Your task to perform on an android device: toggle javascript in the chrome app Image 0: 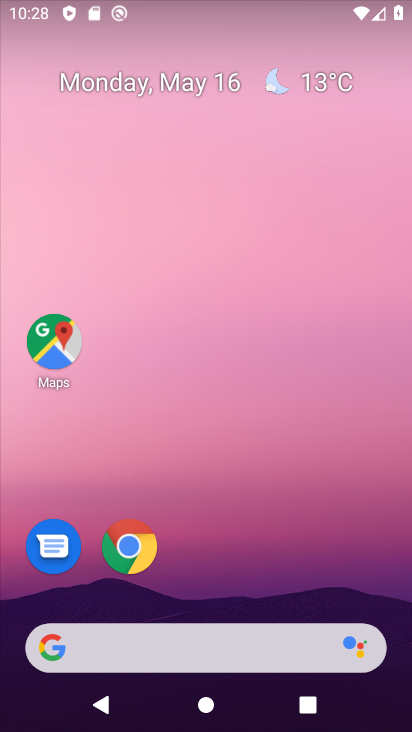
Step 0: drag from (294, 408) to (340, 0)
Your task to perform on an android device: toggle javascript in the chrome app Image 1: 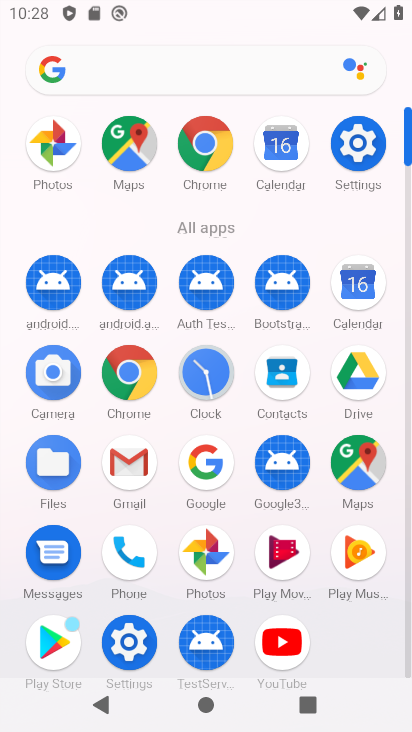
Step 1: click (204, 145)
Your task to perform on an android device: toggle javascript in the chrome app Image 2: 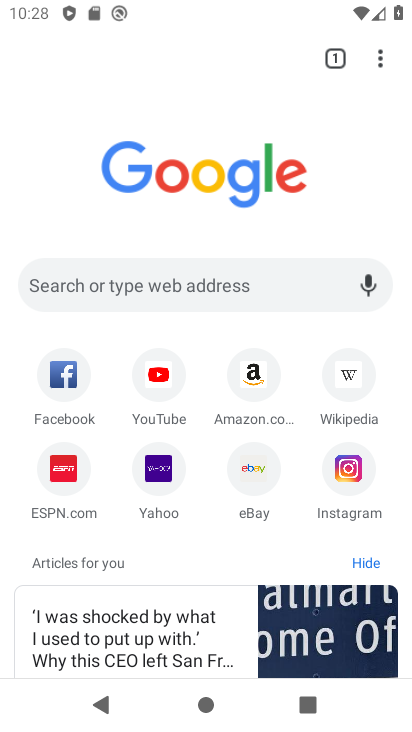
Step 2: drag from (381, 60) to (192, 490)
Your task to perform on an android device: toggle javascript in the chrome app Image 3: 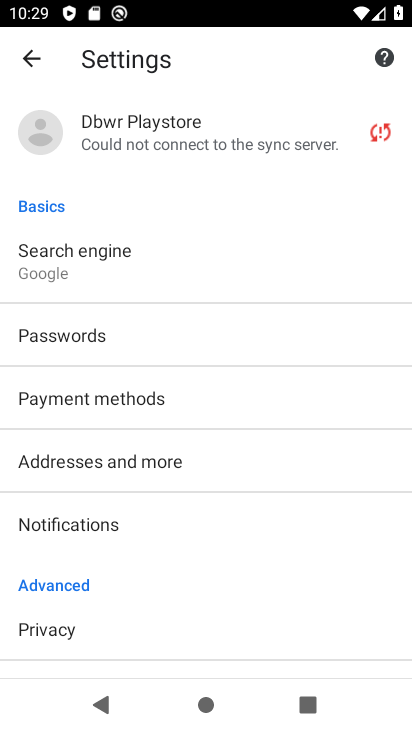
Step 3: drag from (190, 617) to (243, 167)
Your task to perform on an android device: toggle javascript in the chrome app Image 4: 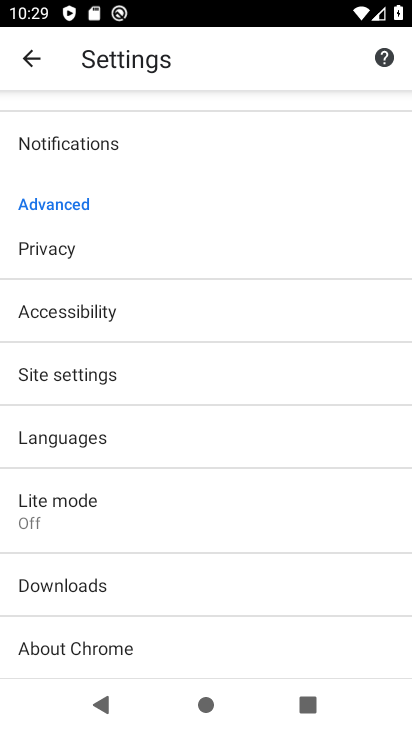
Step 4: click (62, 383)
Your task to perform on an android device: toggle javascript in the chrome app Image 5: 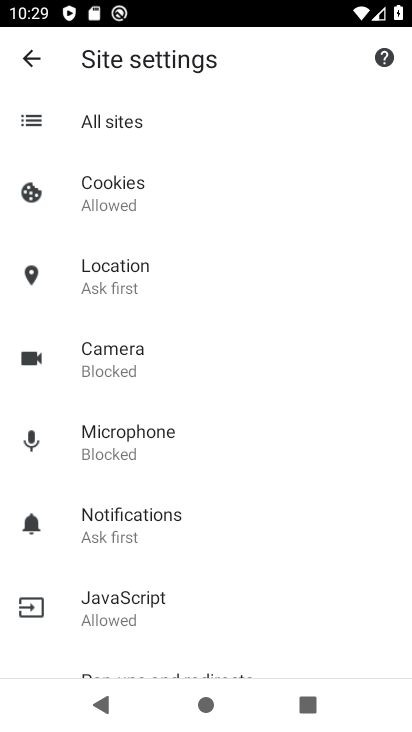
Step 5: click (105, 603)
Your task to perform on an android device: toggle javascript in the chrome app Image 6: 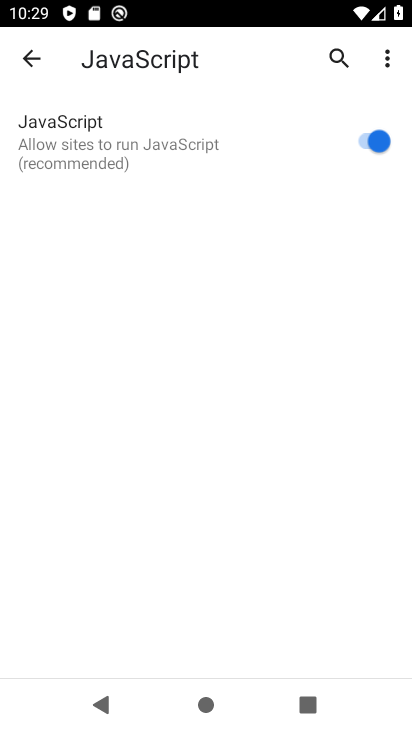
Step 6: click (364, 149)
Your task to perform on an android device: toggle javascript in the chrome app Image 7: 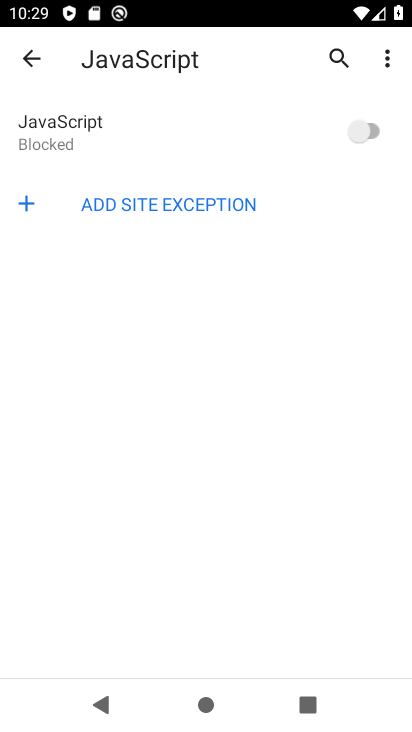
Step 7: task complete